Your task to perform on an android device: check google app version Image 0: 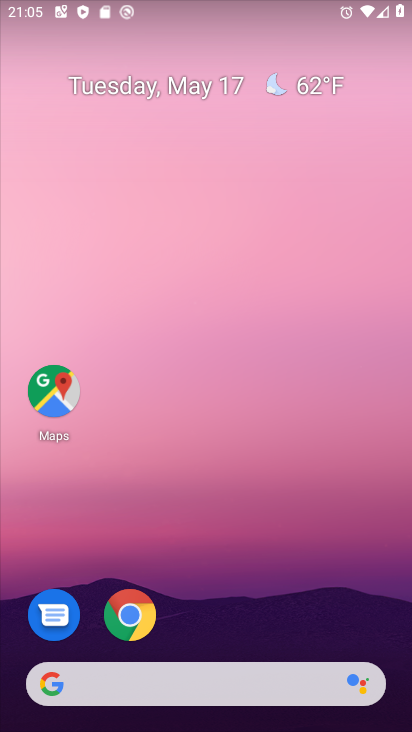
Step 0: drag from (268, 614) to (287, 163)
Your task to perform on an android device: check google app version Image 1: 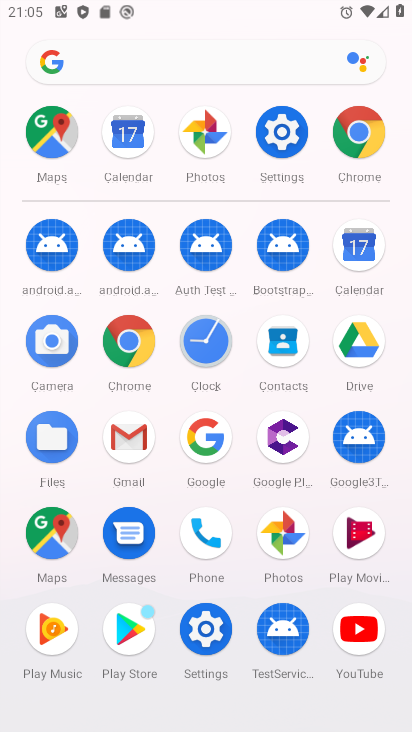
Step 1: click (207, 440)
Your task to perform on an android device: check google app version Image 2: 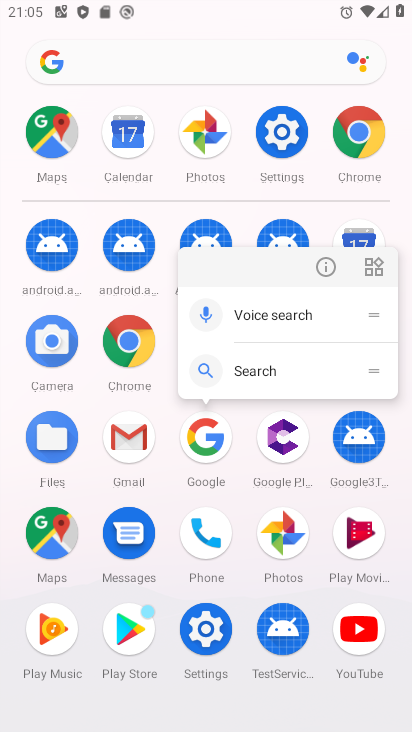
Step 2: click (328, 260)
Your task to perform on an android device: check google app version Image 3: 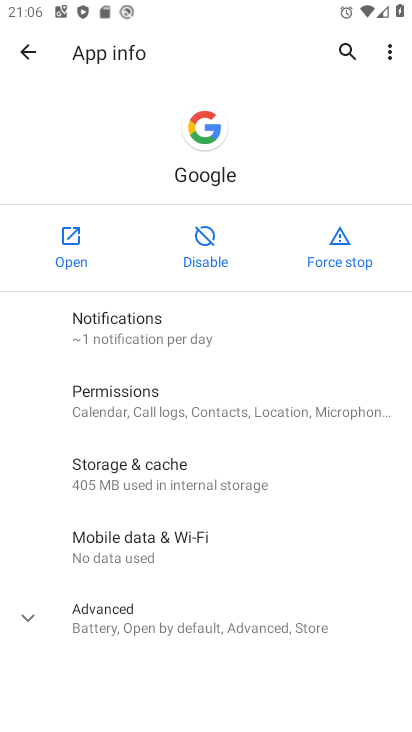
Step 3: click (123, 618)
Your task to perform on an android device: check google app version Image 4: 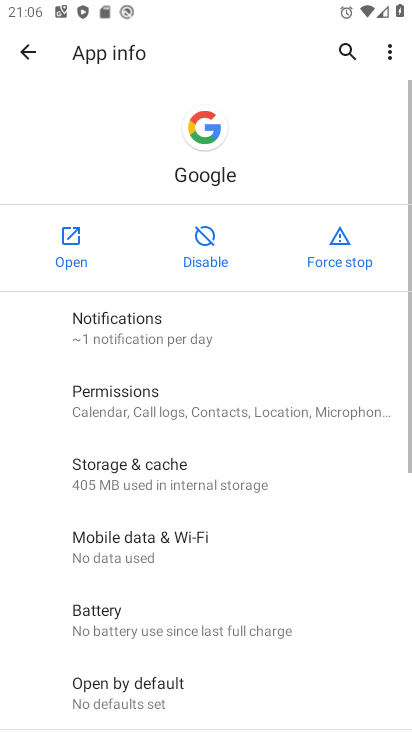
Step 4: task complete